Your task to perform on an android device: What's the weather today? Image 0: 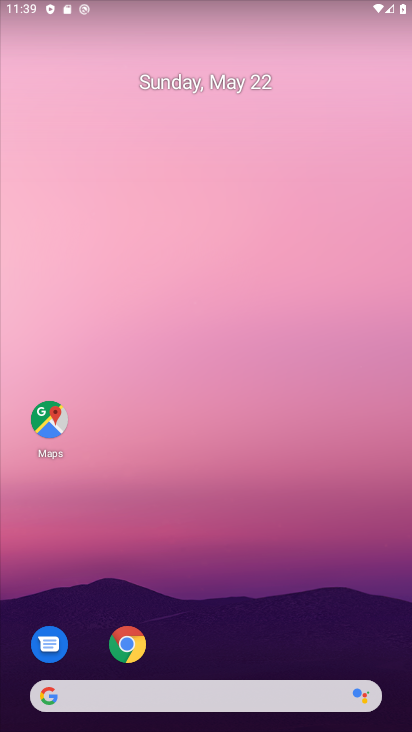
Step 0: click (217, 696)
Your task to perform on an android device: What's the weather today? Image 1: 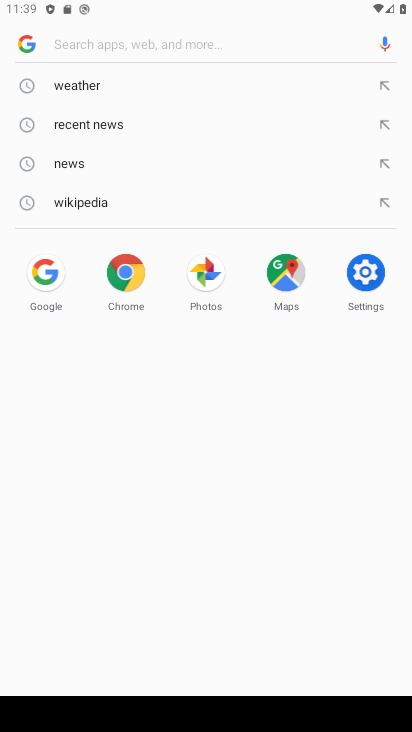
Step 1: press home button
Your task to perform on an android device: What's the weather today? Image 2: 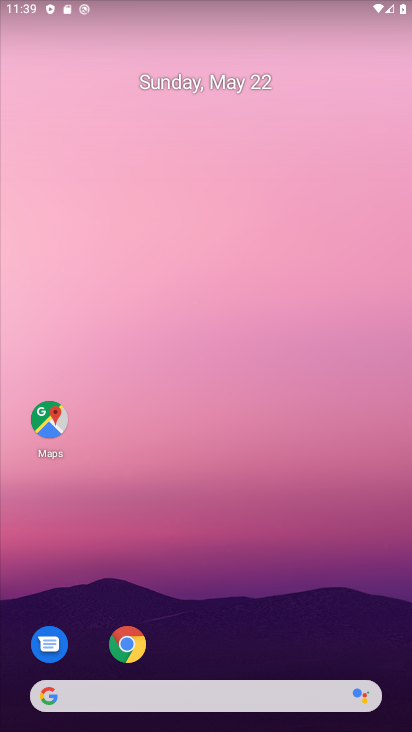
Step 2: drag from (307, 615) to (193, 32)
Your task to perform on an android device: What's the weather today? Image 3: 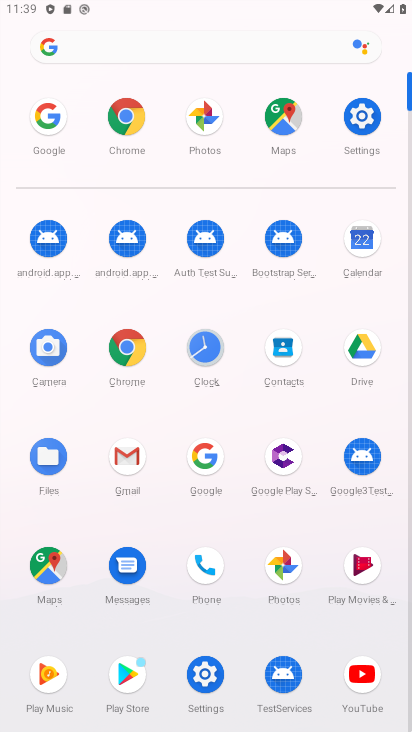
Step 3: click (201, 448)
Your task to perform on an android device: What's the weather today? Image 4: 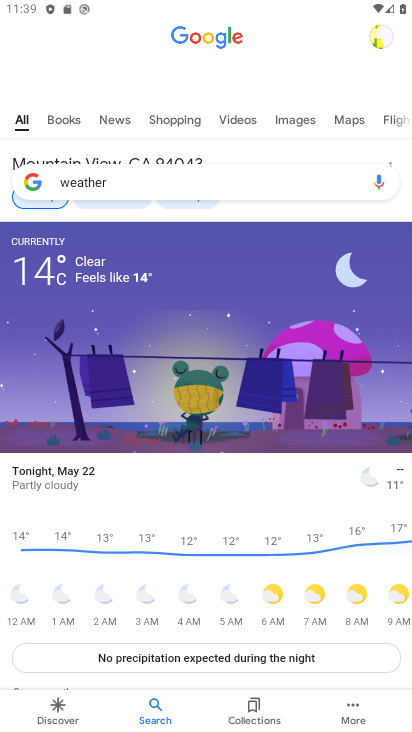
Step 4: press back button
Your task to perform on an android device: What's the weather today? Image 5: 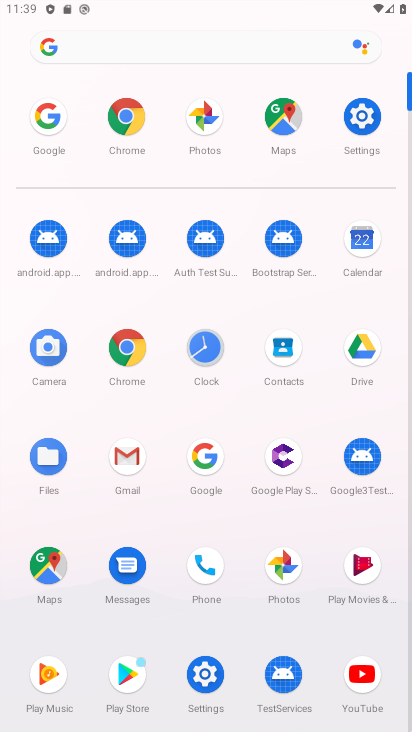
Step 5: click (200, 455)
Your task to perform on an android device: What's the weather today? Image 6: 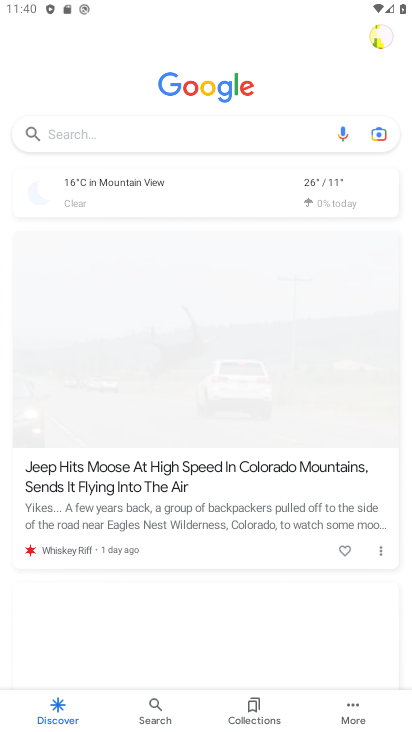
Step 6: click (157, 124)
Your task to perform on an android device: What's the weather today? Image 7: 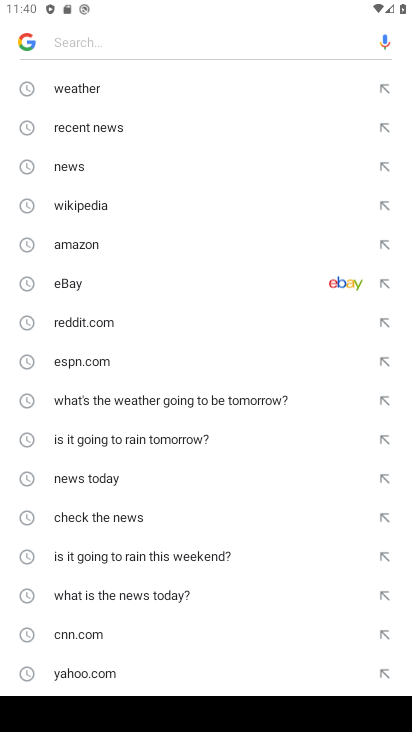
Step 7: drag from (282, 546) to (253, 108)
Your task to perform on an android device: What's the weather today? Image 8: 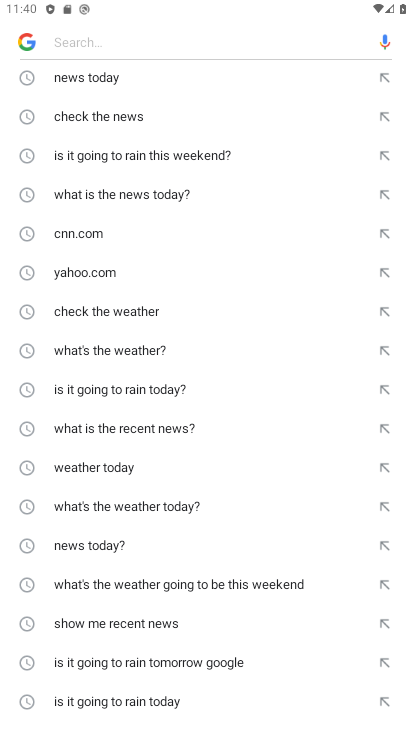
Step 8: click (205, 507)
Your task to perform on an android device: What's the weather today? Image 9: 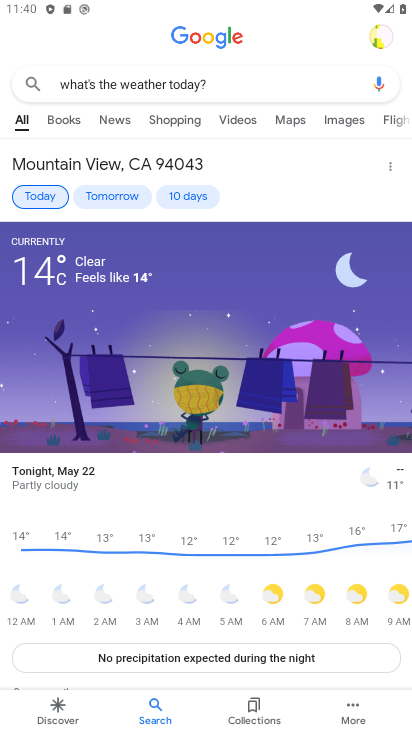
Step 9: task complete